Your task to perform on an android device: Check the weather Image 0: 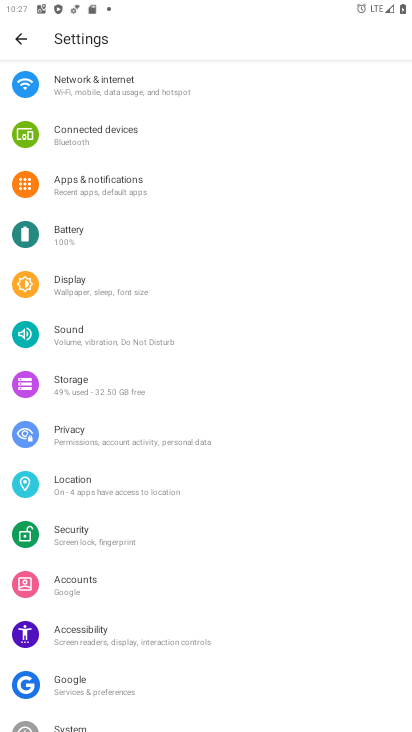
Step 0: press home button
Your task to perform on an android device: Check the weather Image 1: 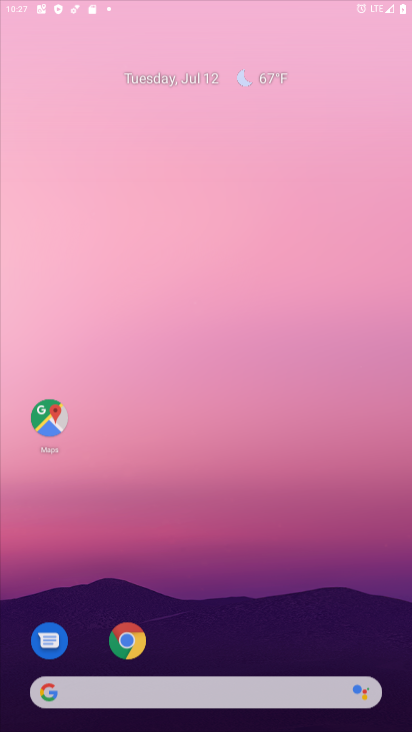
Step 1: drag from (229, 616) to (244, 228)
Your task to perform on an android device: Check the weather Image 2: 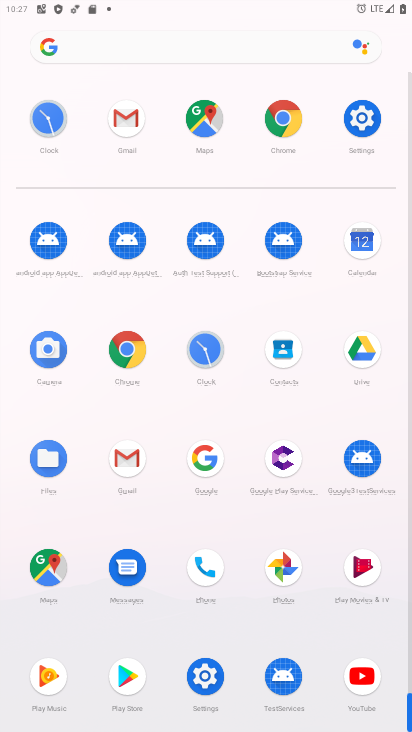
Step 2: click (152, 44)
Your task to perform on an android device: Check the weather Image 3: 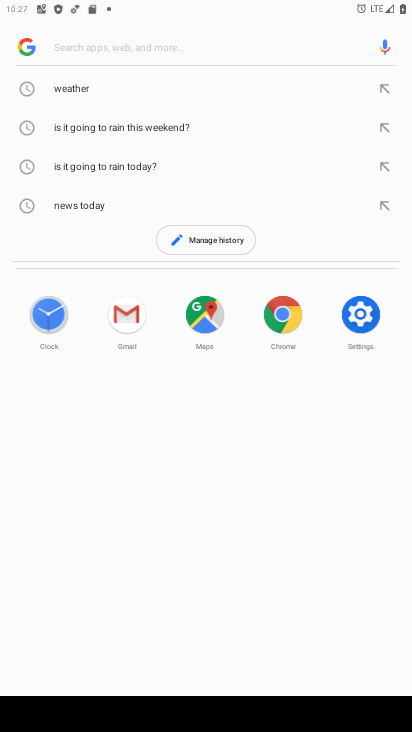
Step 3: click (111, 101)
Your task to perform on an android device: Check the weather Image 4: 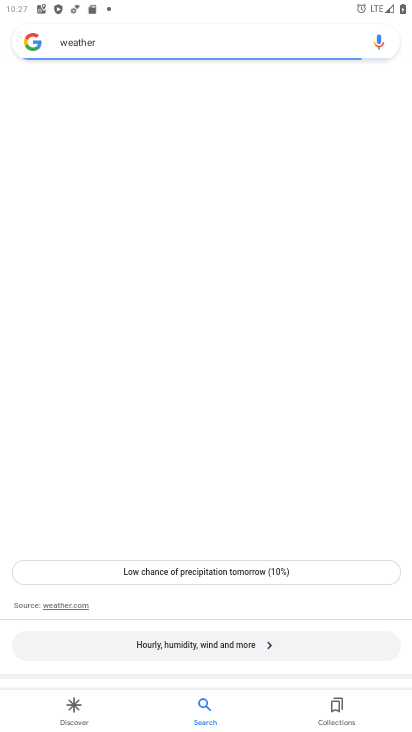
Step 4: task complete